Your task to perform on an android device: open a bookmark in the chrome app Image 0: 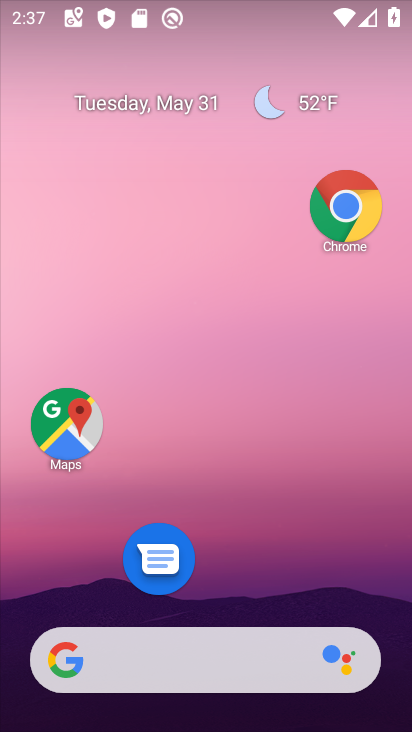
Step 0: drag from (262, 285) to (259, 141)
Your task to perform on an android device: open a bookmark in the chrome app Image 1: 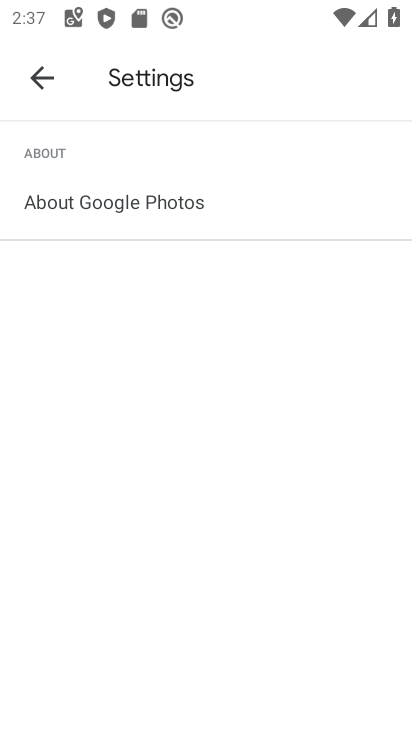
Step 1: press home button
Your task to perform on an android device: open a bookmark in the chrome app Image 2: 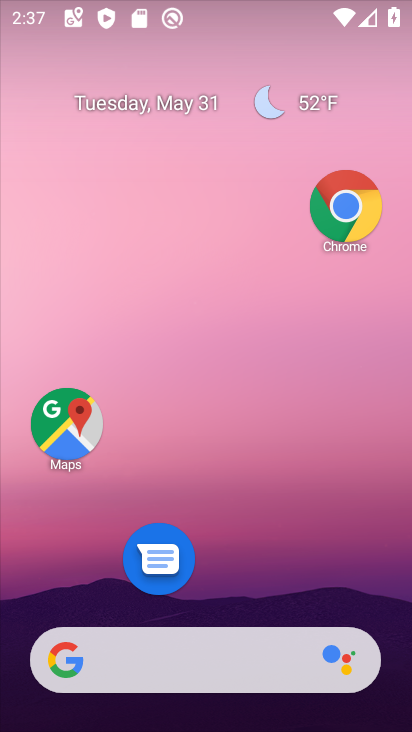
Step 2: drag from (257, 546) to (240, 115)
Your task to perform on an android device: open a bookmark in the chrome app Image 3: 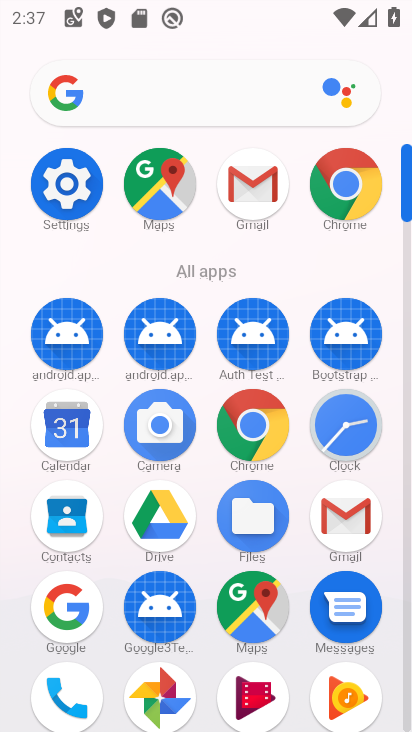
Step 3: click (260, 454)
Your task to perform on an android device: open a bookmark in the chrome app Image 4: 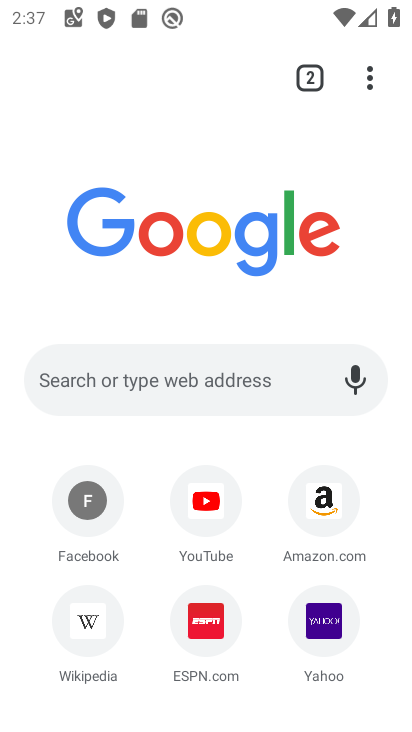
Step 4: click (372, 93)
Your task to perform on an android device: open a bookmark in the chrome app Image 5: 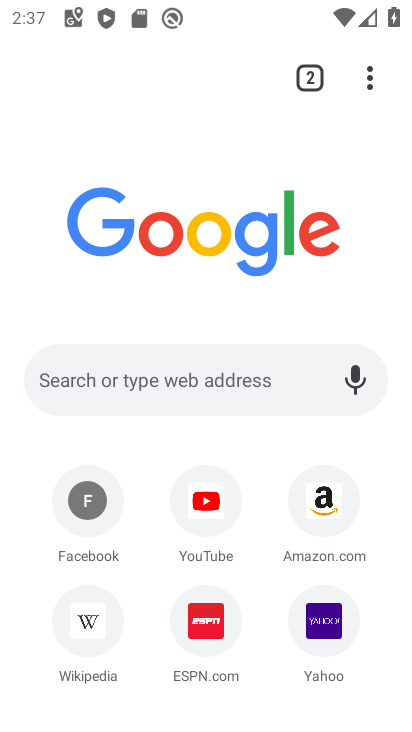
Step 5: click (382, 78)
Your task to perform on an android device: open a bookmark in the chrome app Image 6: 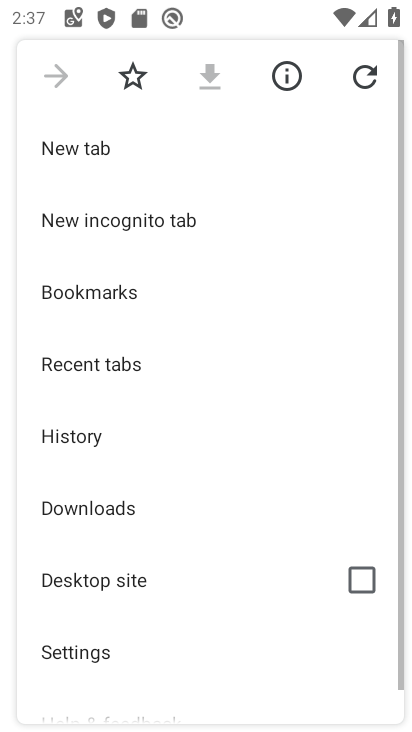
Step 6: click (145, 284)
Your task to perform on an android device: open a bookmark in the chrome app Image 7: 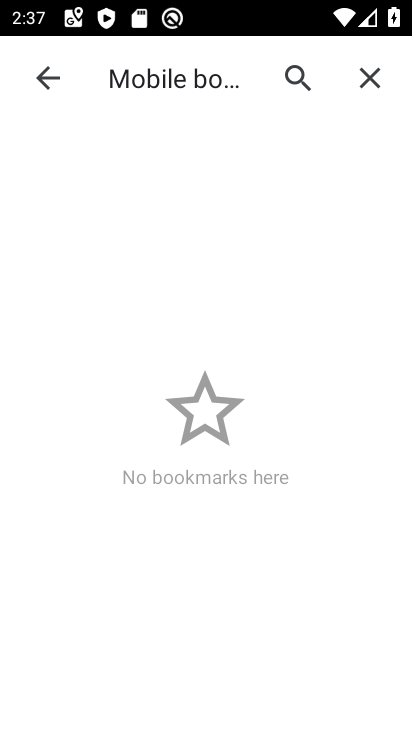
Step 7: task complete